Your task to perform on an android device: delete the emails in spam in the gmail app Image 0: 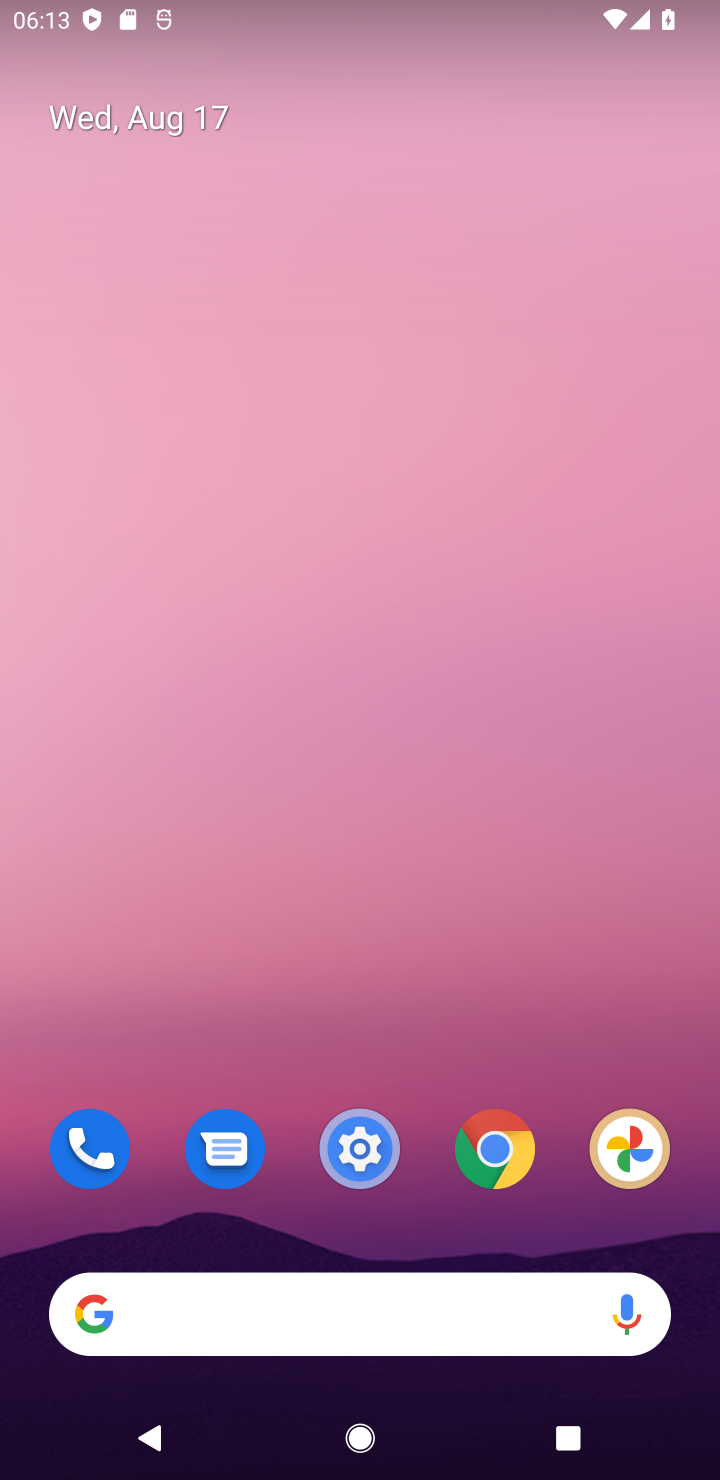
Step 0: press home button
Your task to perform on an android device: delete the emails in spam in the gmail app Image 1: 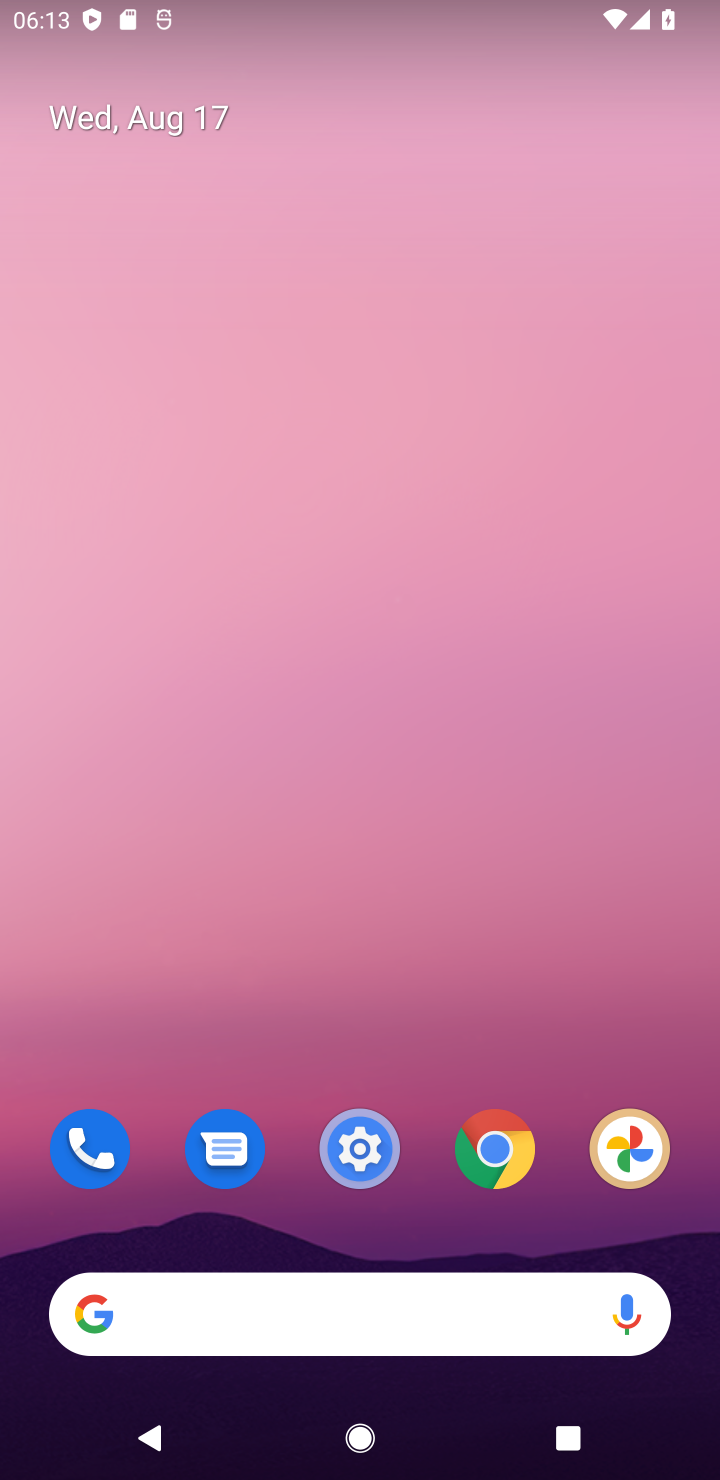
Step 1: drag from (394, 1036) to (368, 89)
Your task to perform on an android device: delete the emails in spam in the gmail app Image 2: 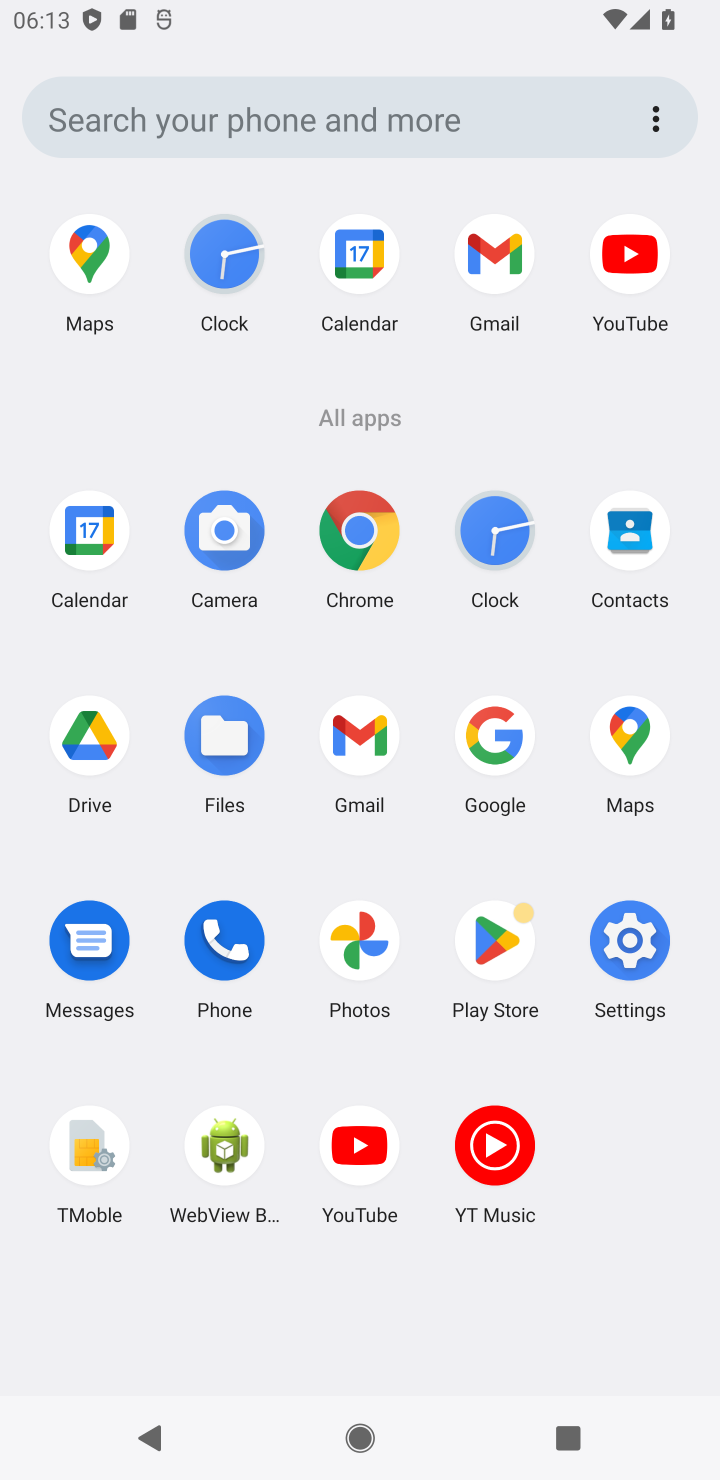
Step 2: click (500, 227)
Your task to perform on an android device: delete the emails in spam in the gmail app Image 3: 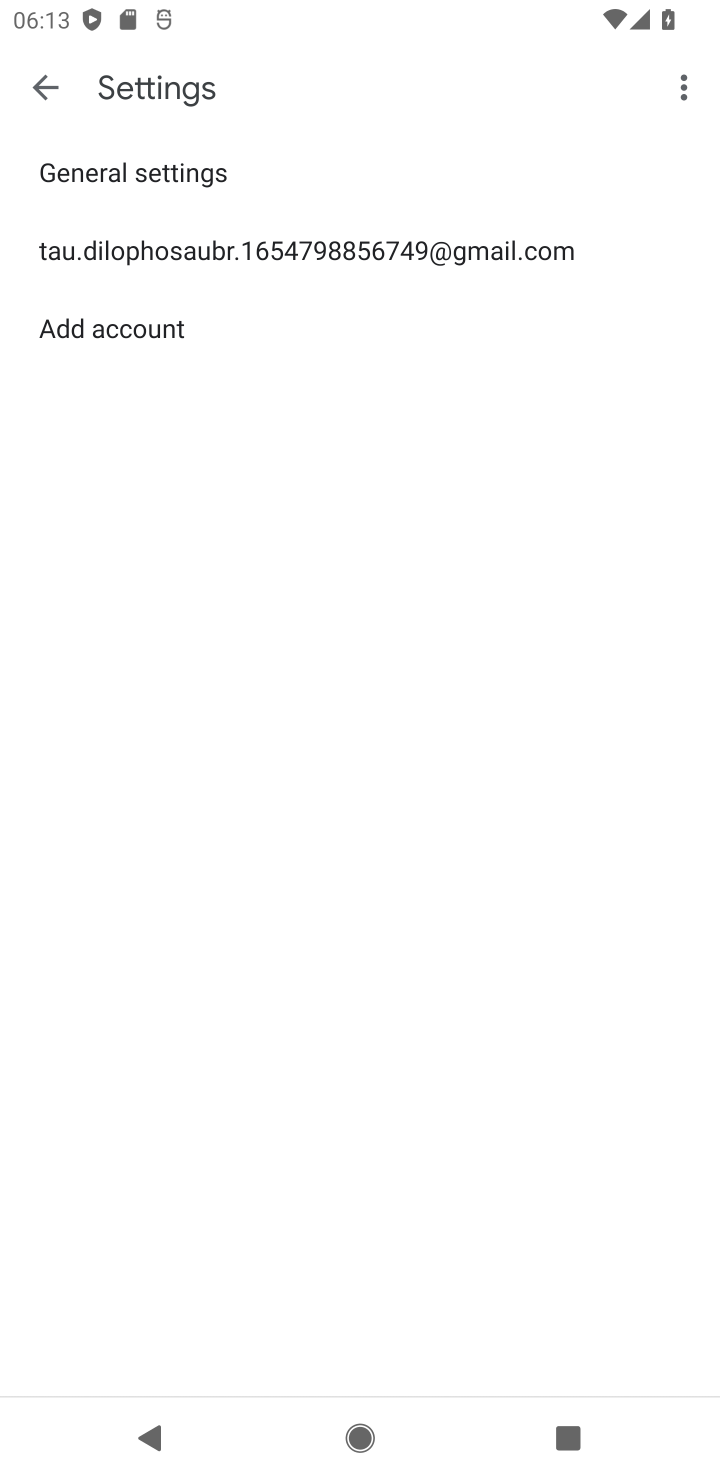
Step 3: click (29, 79)
Your task to perform on an android device: delete the emails in spam in the gmail app Image 4: 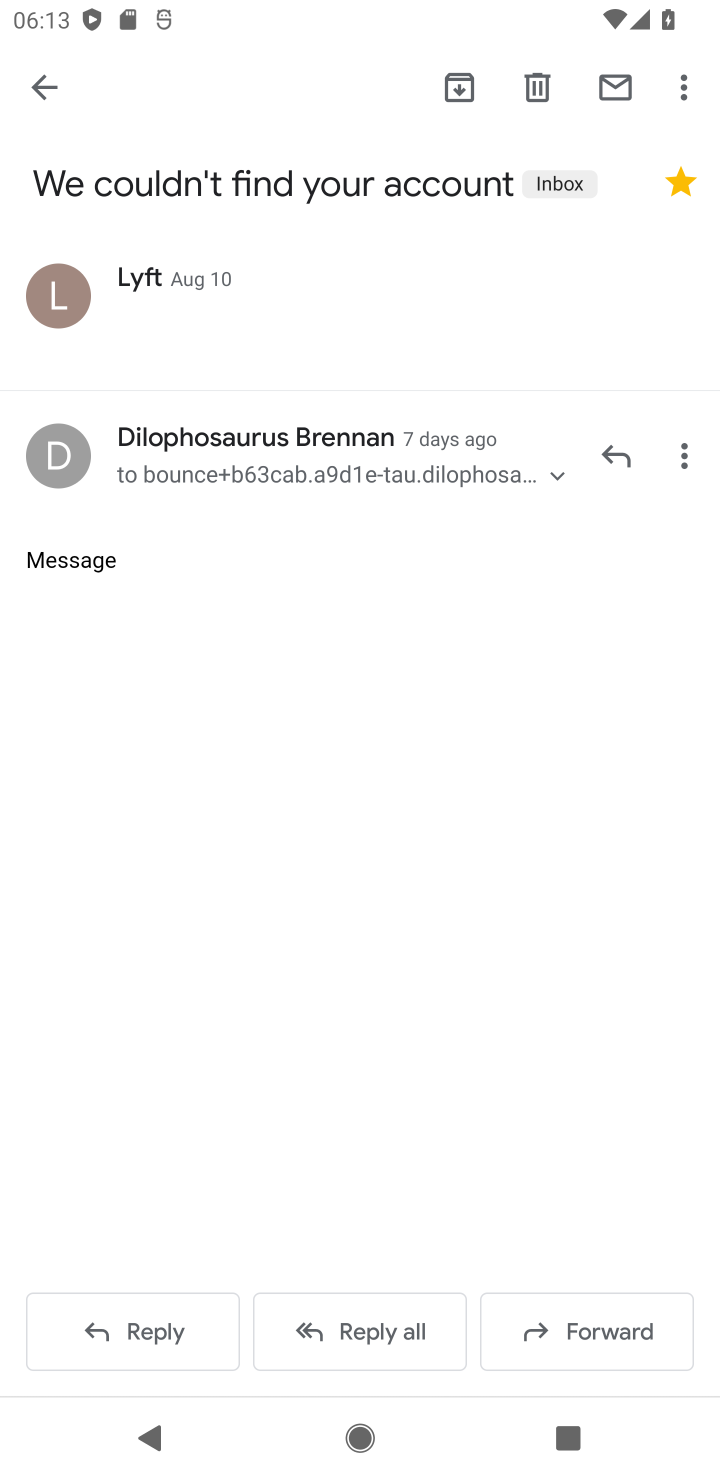
Step 4: click (54, 81)
Your task to perform on an android device: delete the emails in spam in the gmail app Image 5: 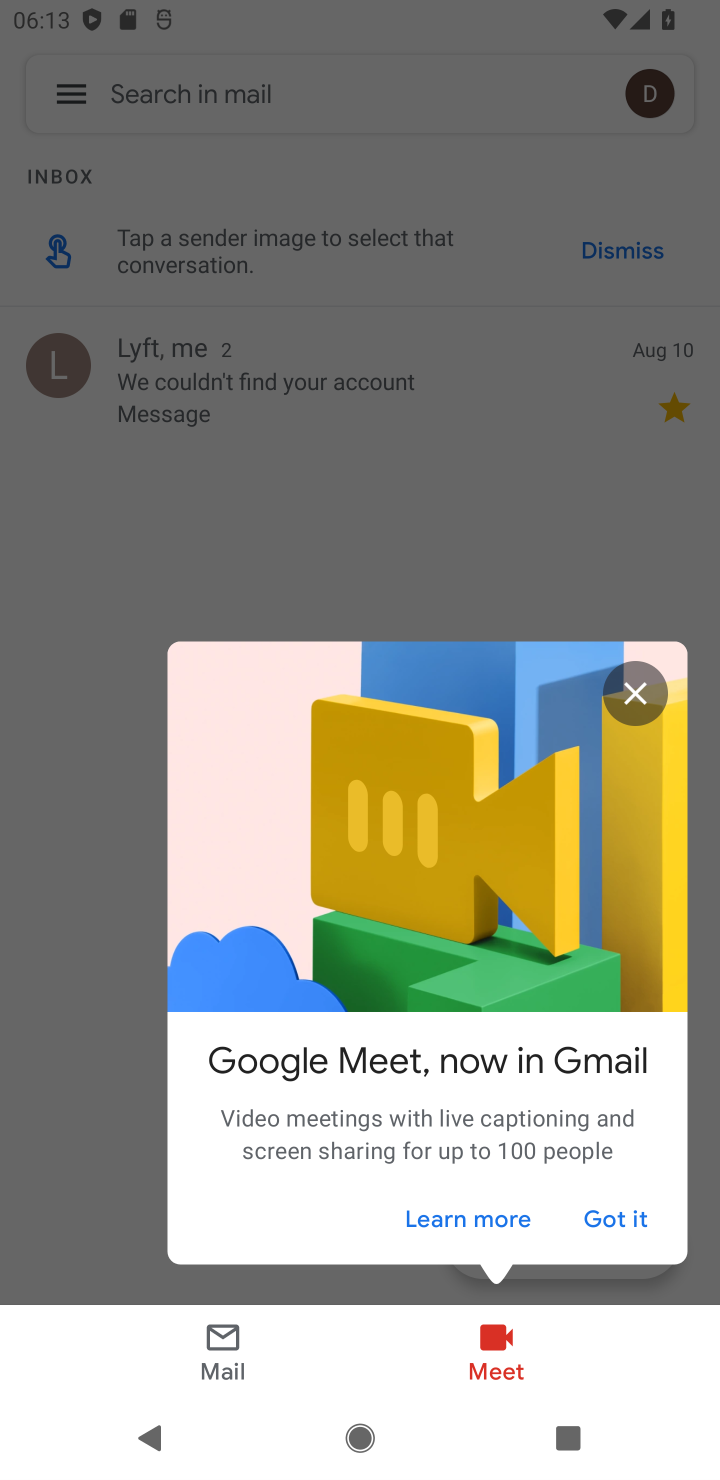
Step 5: click (71, 92)
Your task to perform on an android device: delete the emails in spam in the gmail app Image 6: 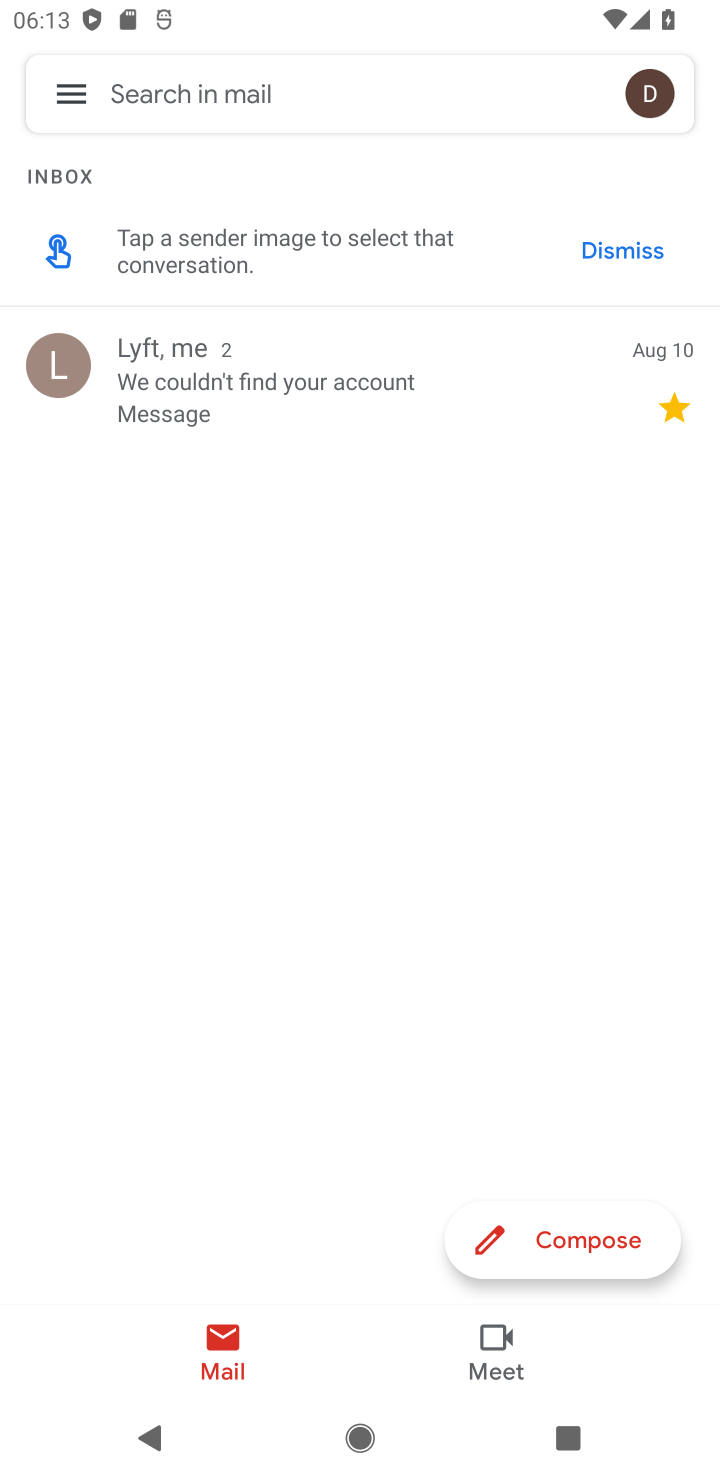
Step 6: click (76, 88)
Your task to perform on an android device: delete the emails in spam in the gmail app Image 7: 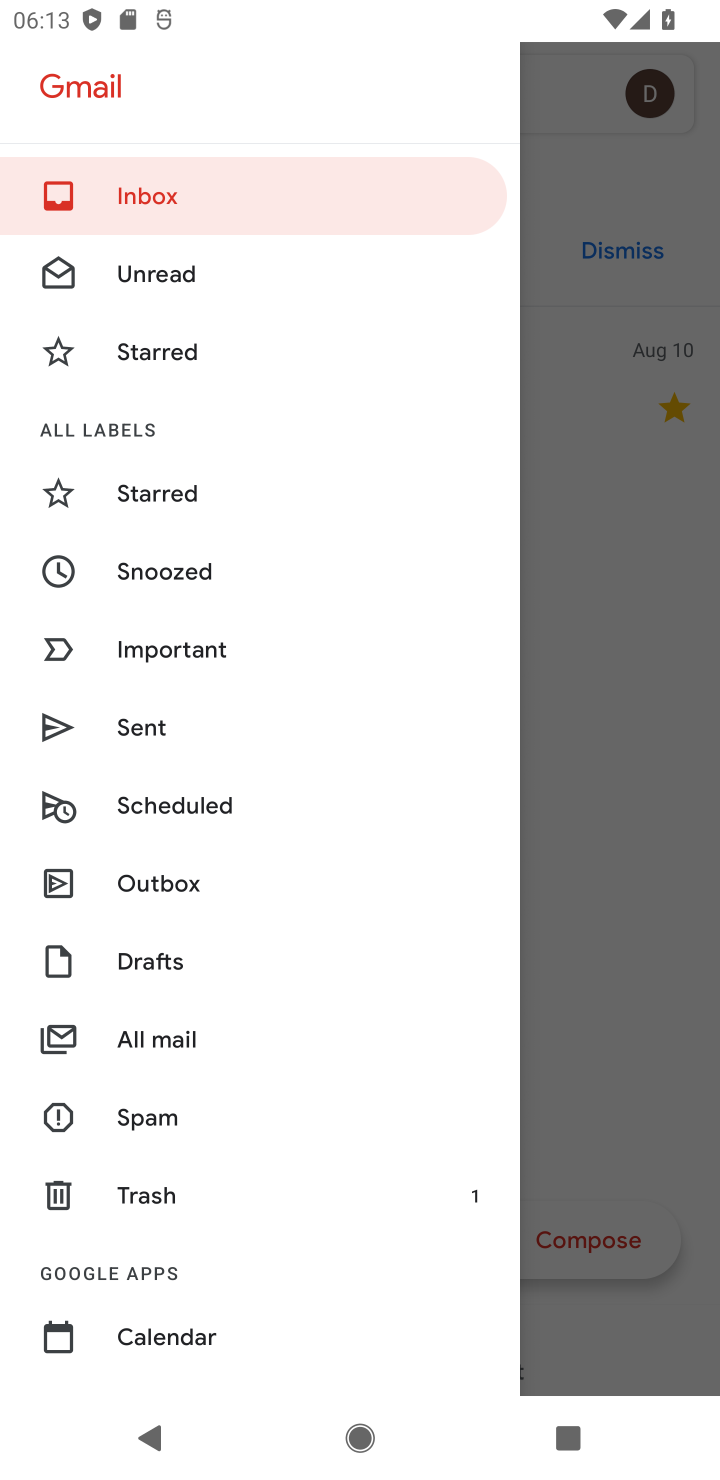
Step 7: click (126, 1116)
Your task to perform on an android device: delete the emails in spam in the gmail app Image 8: 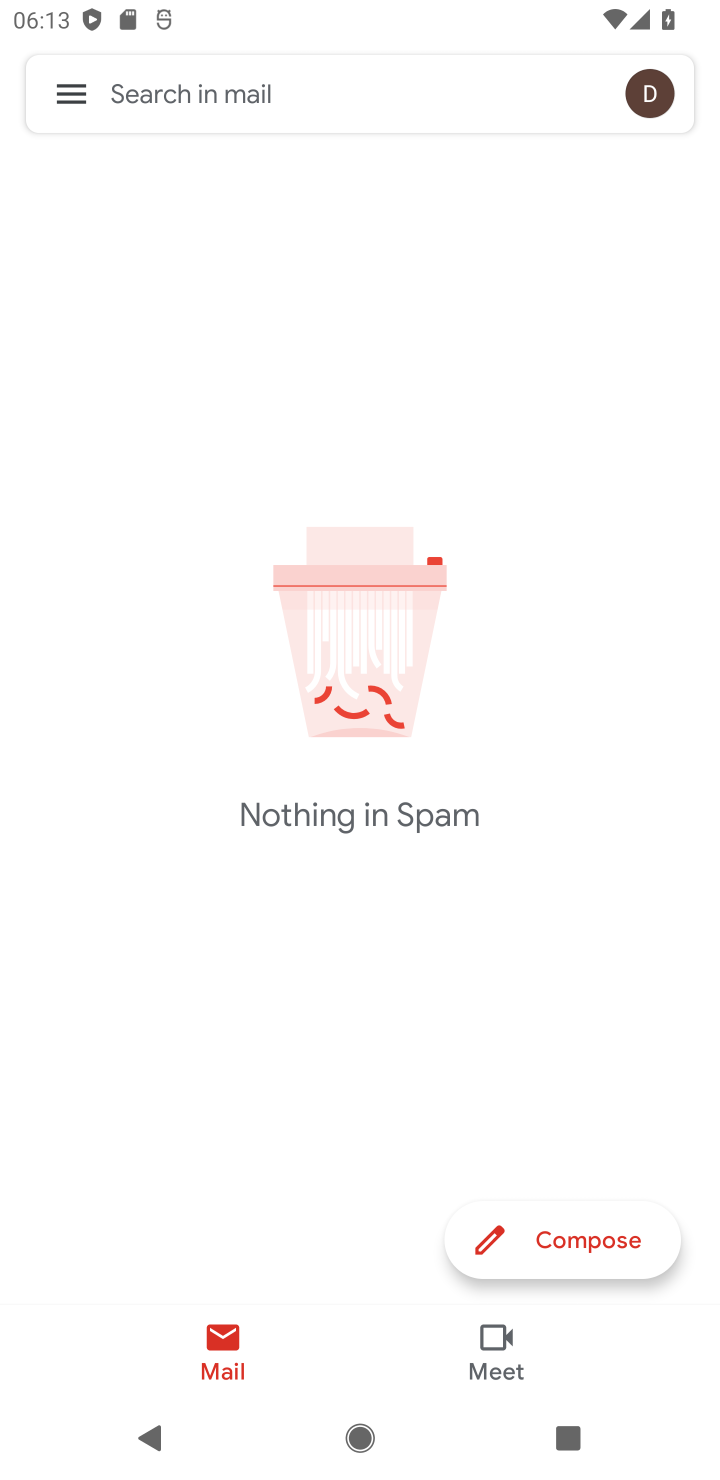
Step 8: task complete